Your task to perform on an android device: Set the phone to "Do not disturb". Image 0: 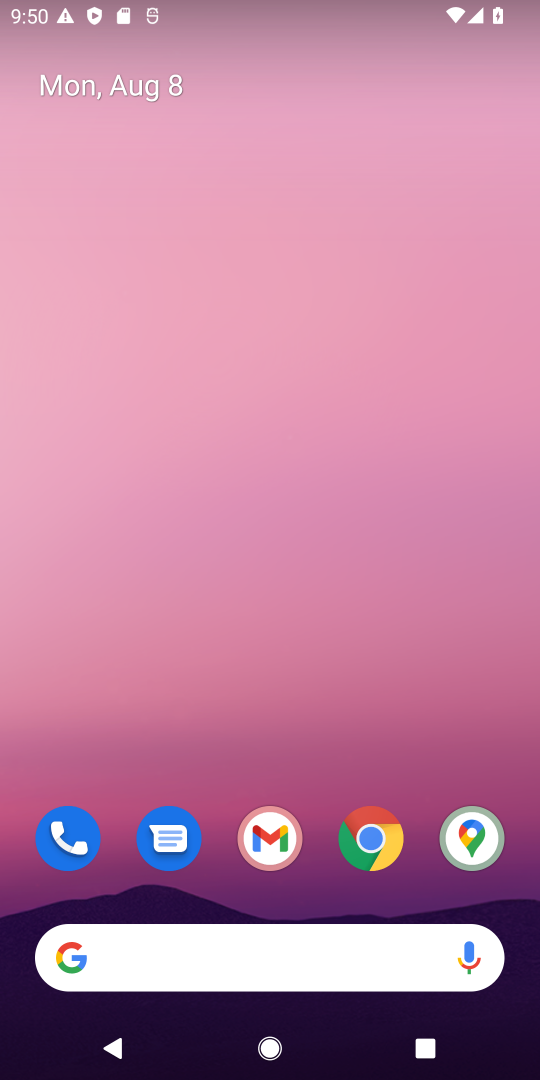
Step 0: press home button
Your task to perform on an android device: Set the phone to "Do not disturb". Image 1: 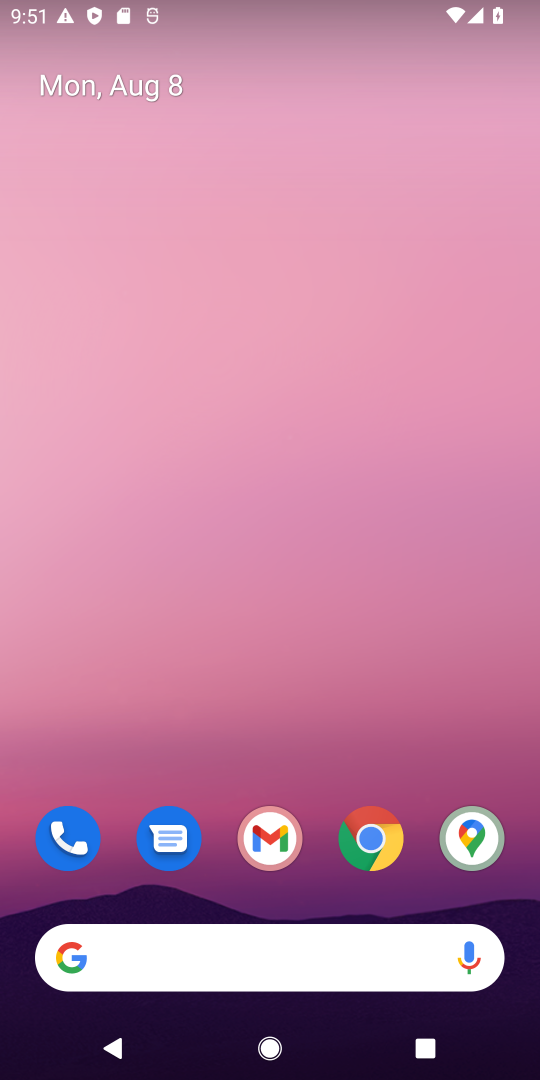
Step 1: click (199, 36)
Your task to perform on an android device: Set the phone to "Do not disturb". Image 2: 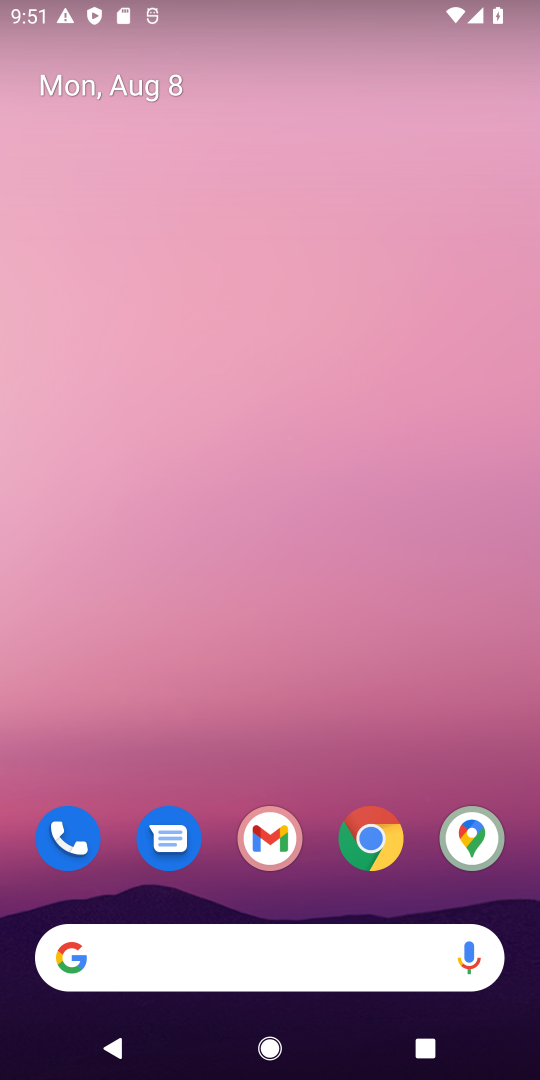
Step 2: drag from (324, 873) to (303, 53)
Your task to perform on an android device: Set the phone to "Do not disturb". Image 3: 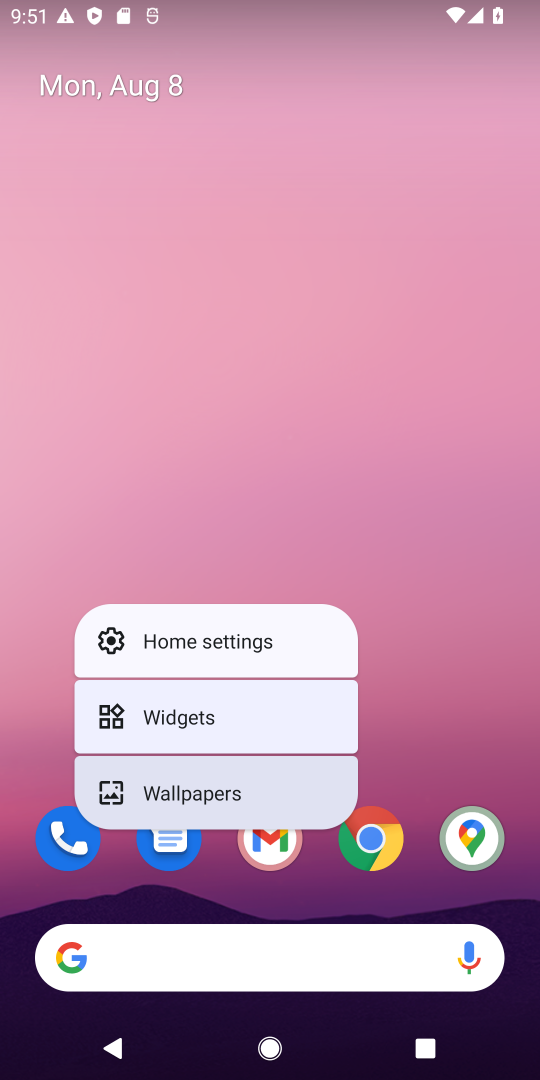
Step 3: drag from (433, 874) to (208, 27)
Your task to perform on an android device: Set the phone to "Do not disturb". Image 4: 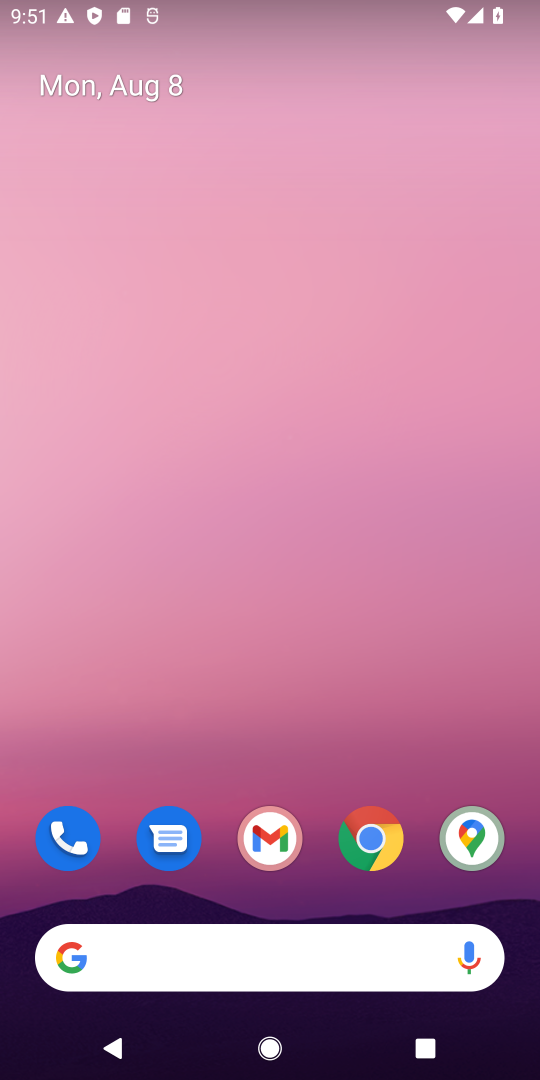
Step 4: drag from (317, 883) to (364, 123)
Your task to perform on an android device: Set the phone to "Do not disturb". Image 5: 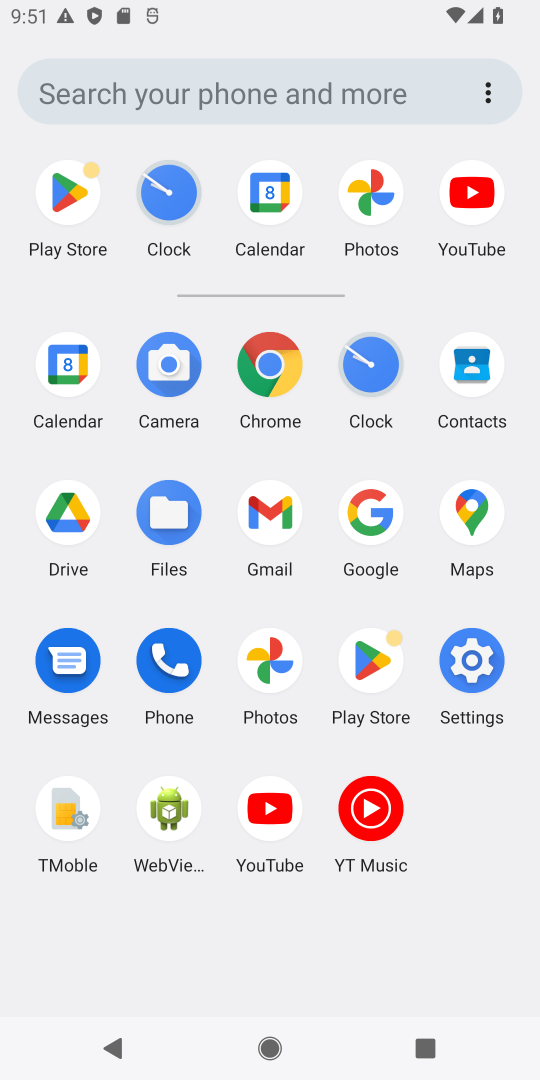
Step 5: click (492, 678)
Your task to perform on an android device: Set the phone to "Do not disturb". Image 6: 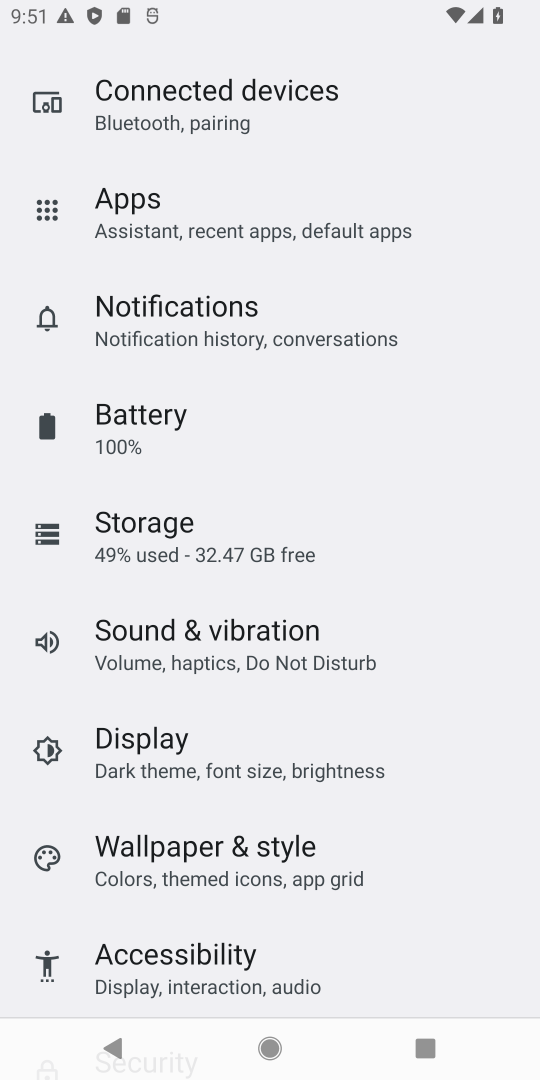
Step 6: drag from (387, 187) to (280, 694)
Your task to perform on an android device: Set the phone to "Do not disturb". Image 7: 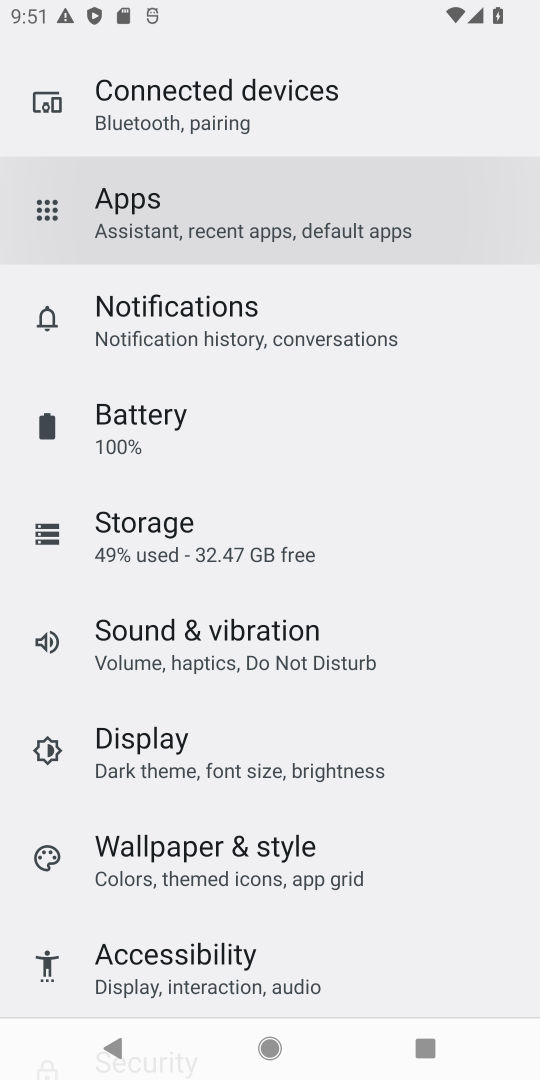
Step 7: click (275, 669)
Your task to perform on an android device: Set the phone to "Do not disturb". Image 8: 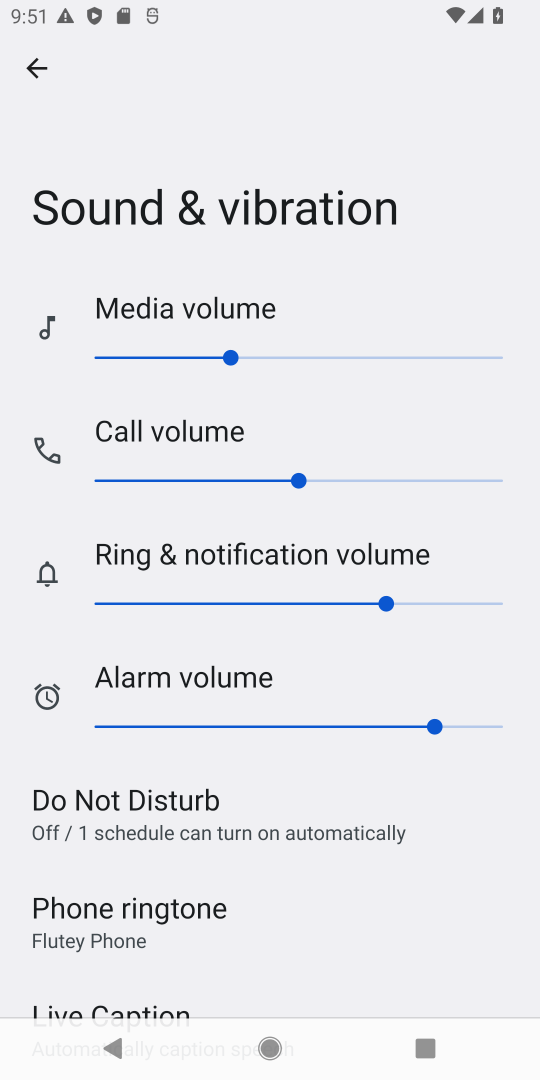
Step 8: drag from (386, 887) to (368, 810)
Your task to perform on an android device: Set the phone to "Do not disturb". Image 9: 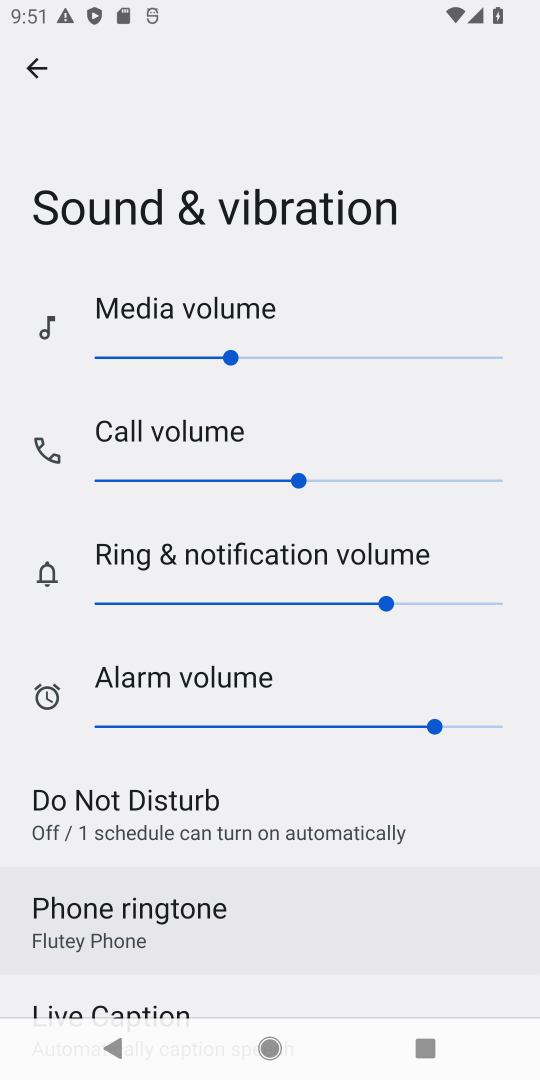
Step 9: click (197, 811)
Your task to perform on an android device: Set the phone to "Do not disturb". Image 10: 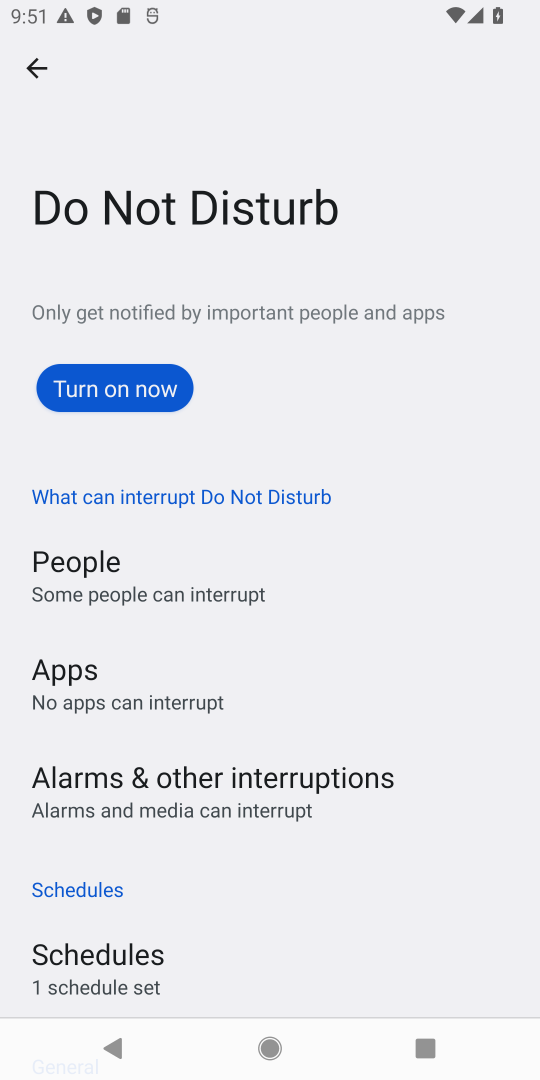
Step 10: click (89, 392)
Your task to perform on an android device: Set the phone to "Do not disturb". Image 11: 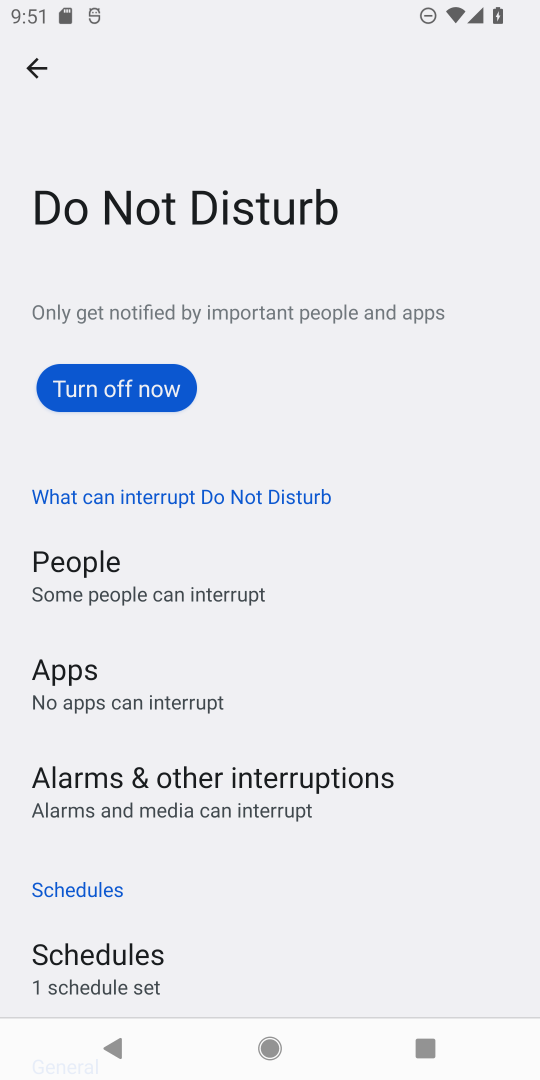
Step 11: task complete